Your task to perform on an android device: add a contact Image 0: 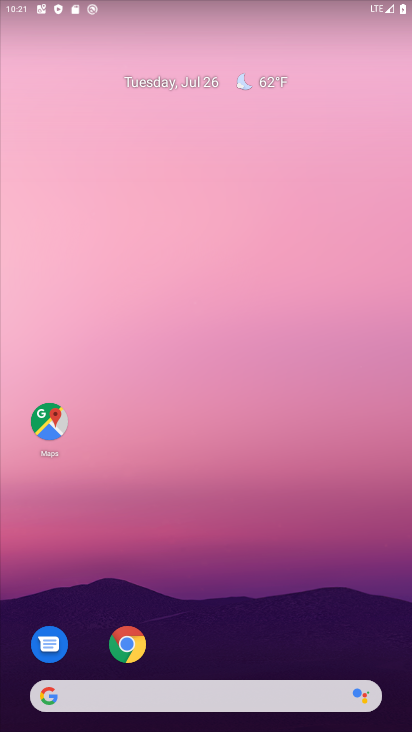
Step 0: drag from (234, 672) to (259, 1)
Your task to perform on an android device: add a contact Image 1: 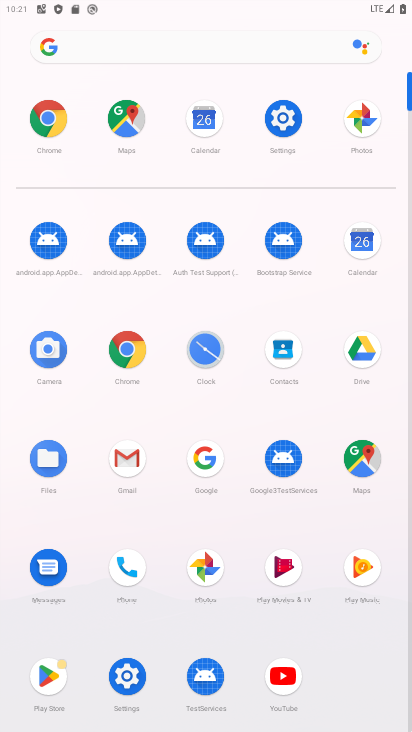
Step 1: click (285, 350)
Your task to perform on an android device: add a contact Image 2: 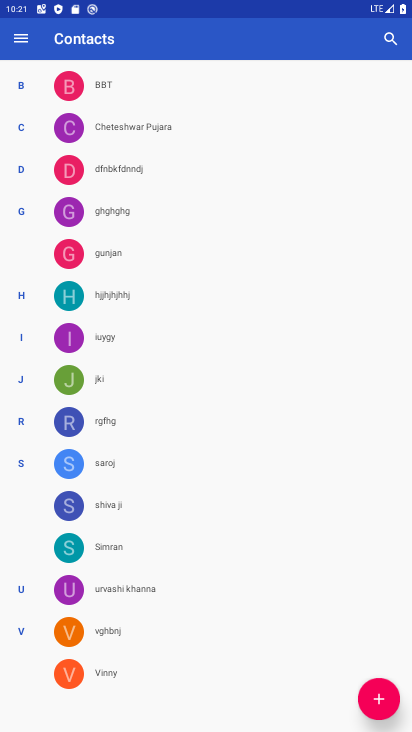
Step 2: click (376, 695)
Your task to perform on an android device: add a contact Image 3: 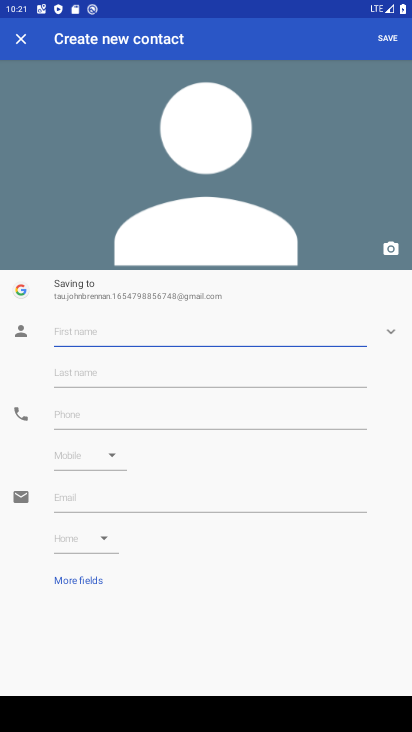
Step 3: click (103, 330)
Your task to perform on an android device: add a contact Image 4: 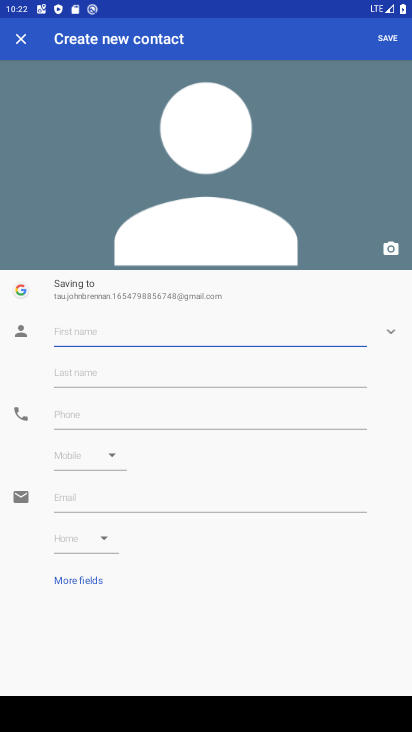
Step 4: type "uyhhjj"
Your task to perform on an android device: add a contact Image 5: 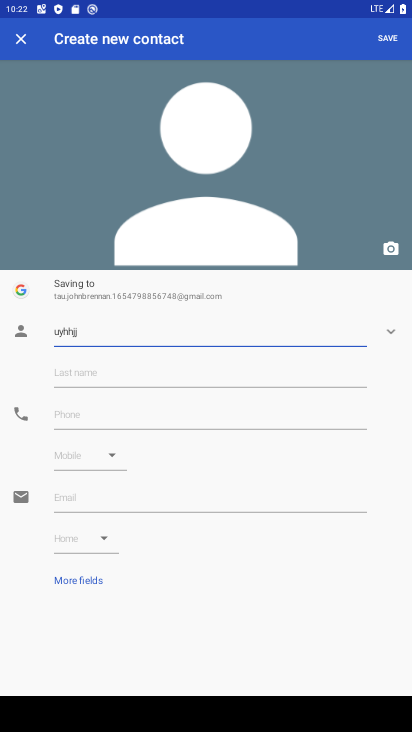
Step 5: click (114, 423)
Your task to perform on an android device: add a contact Image 6: 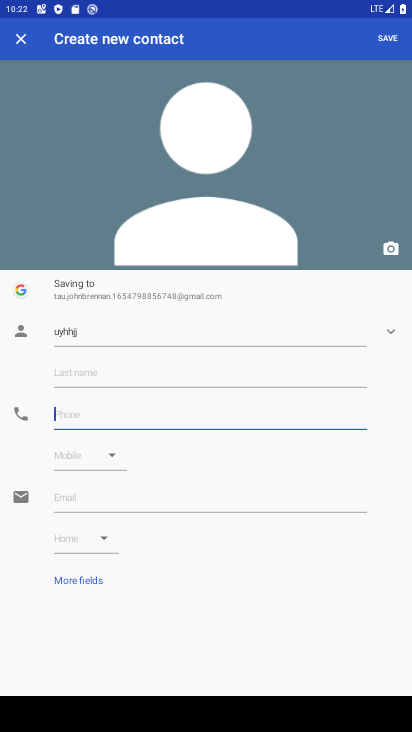
Step 6: type "127465653"
Your task to perform on an android device: add a contact Image 7: 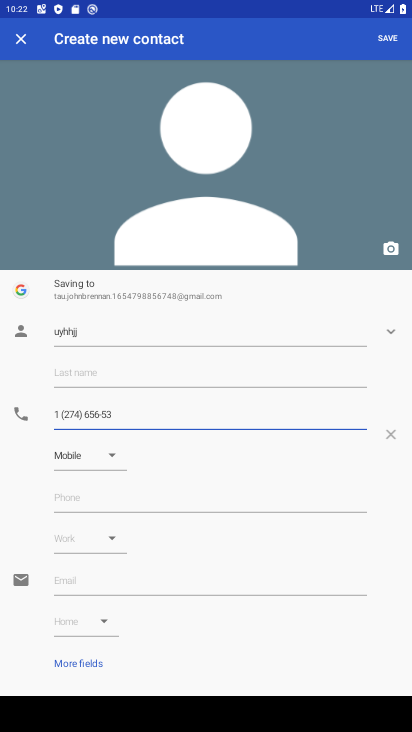
Step 7: click (394, 37)
Your task to perform on an android device: add a contact Image 8: 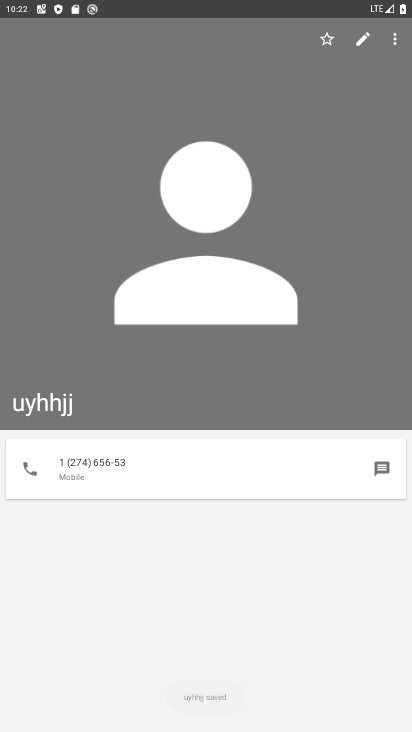
Step 8: task complete